Your task to perform on an android device: turn on airplane mode Image 0: 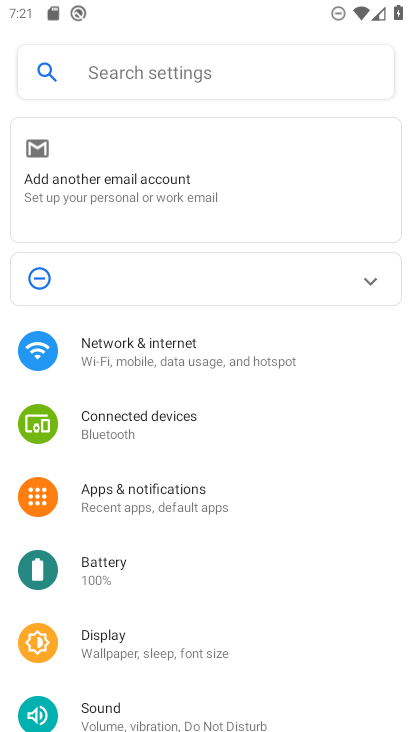
Step 0: click (151, 344)
Your task to perform on an android device: turn on airplane mode Image 1: 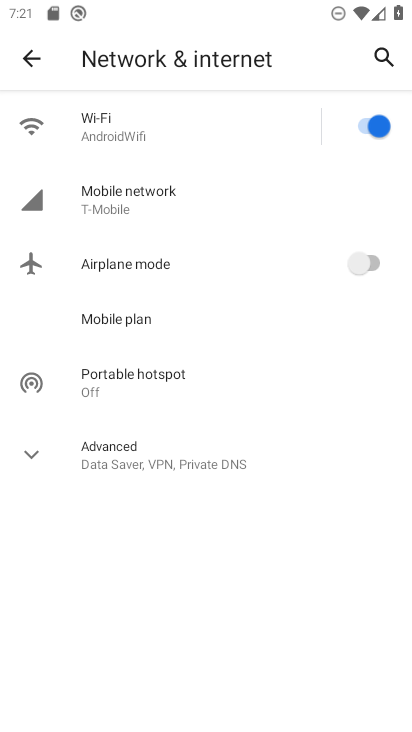
Step 1: click (358, 265)
Your task to perform on an android device: turn on airplane mode Image 2: 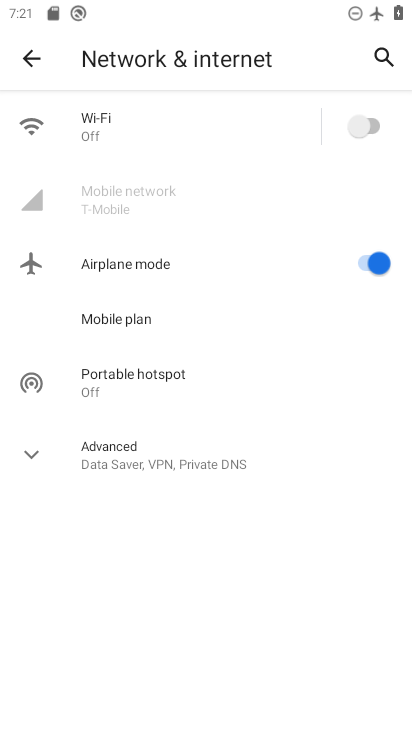
Step 2: task complete